Your task to perform on an android device: Play the last video I watched on Youtube Image 0: 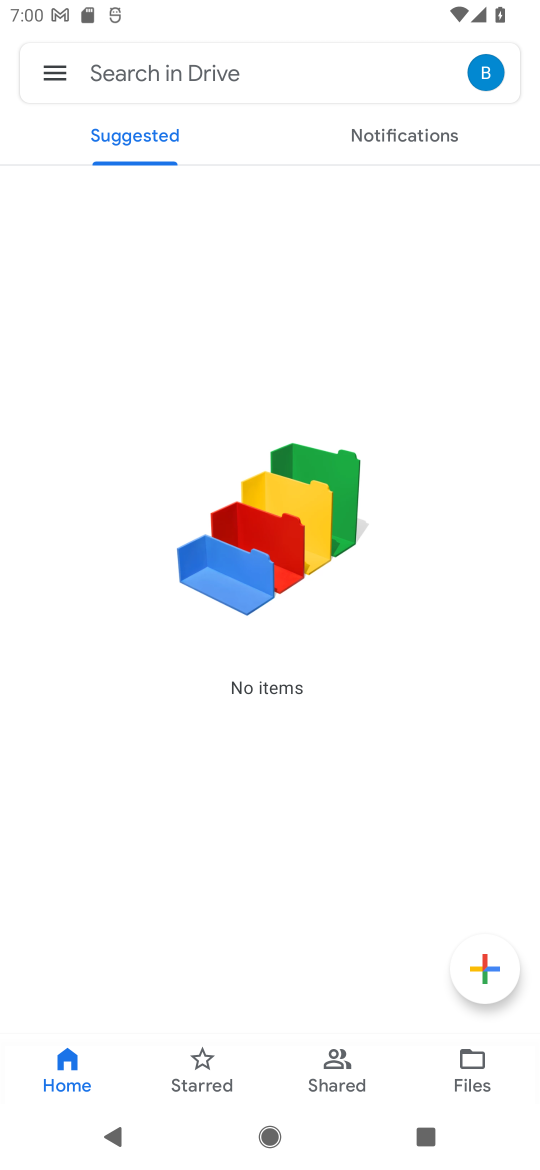
Step 0: press home button
Your task to perform on an android device: Play the last video I watched on Youtube Image 1: 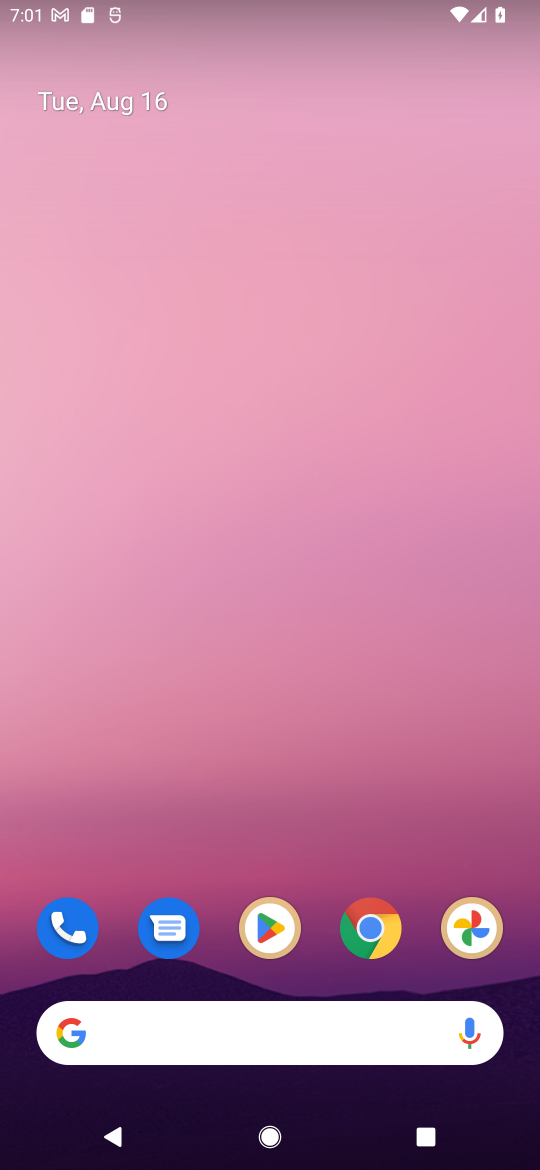
Step 1: drag from (267, 984) to (282, 50)
Your task to perform on an android device: Play the last video I watched on Youtube Image 2: 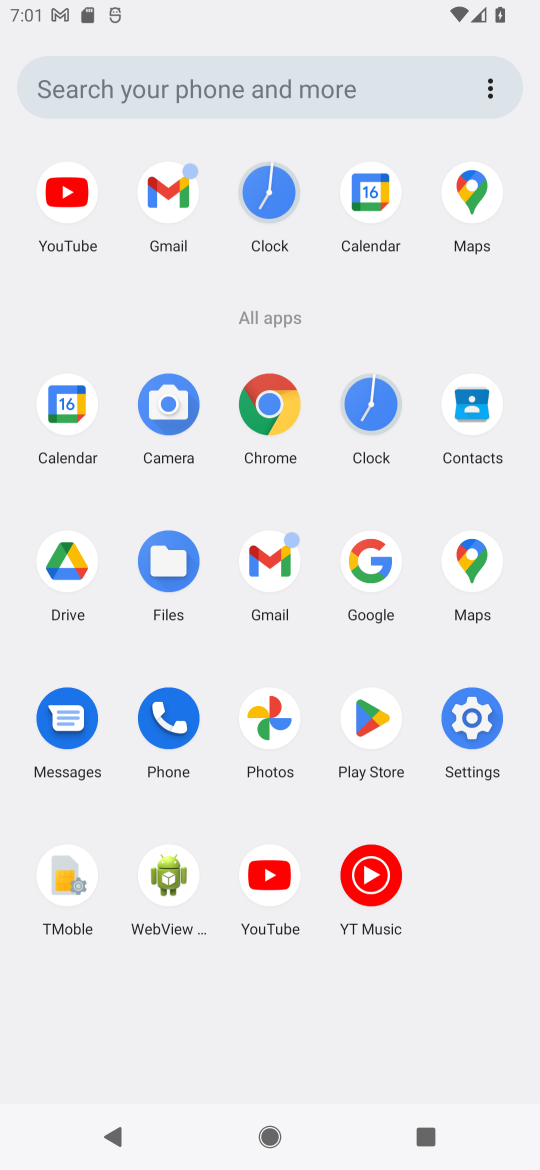
Step 2: click (277, 897)
Your task to perform on an android device: Play the last video I watched on Youtube Image 3: 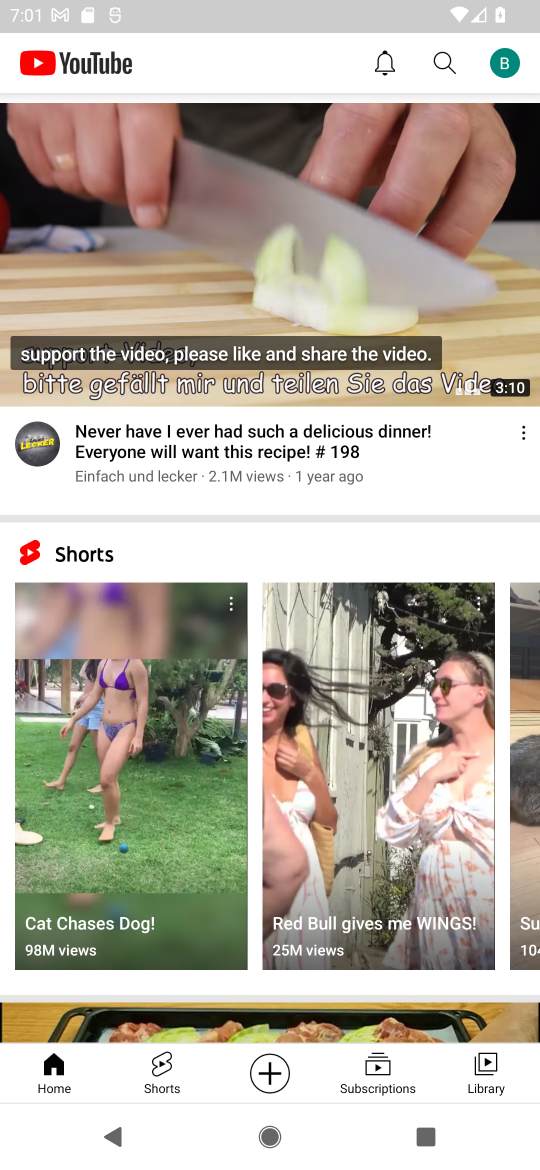
Step 3: click (479, 1068)
Your task to perform on an android device: Play the last video I watched on Youtube Image 4: 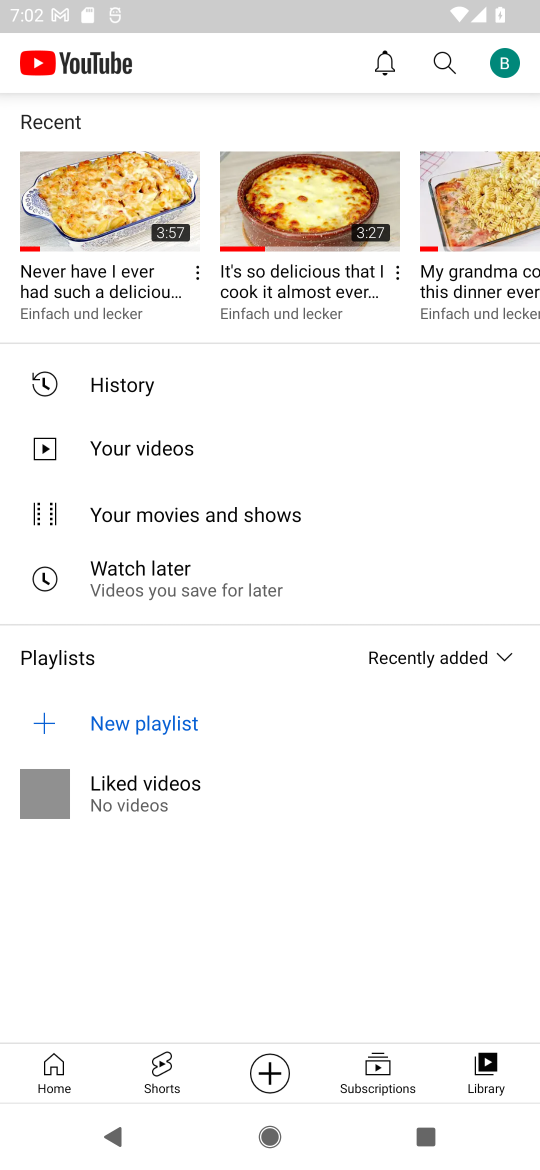
Step 4: click (81, 217)
Your task to perform on an android device: Play the last video I watched on Youtube Image 5: 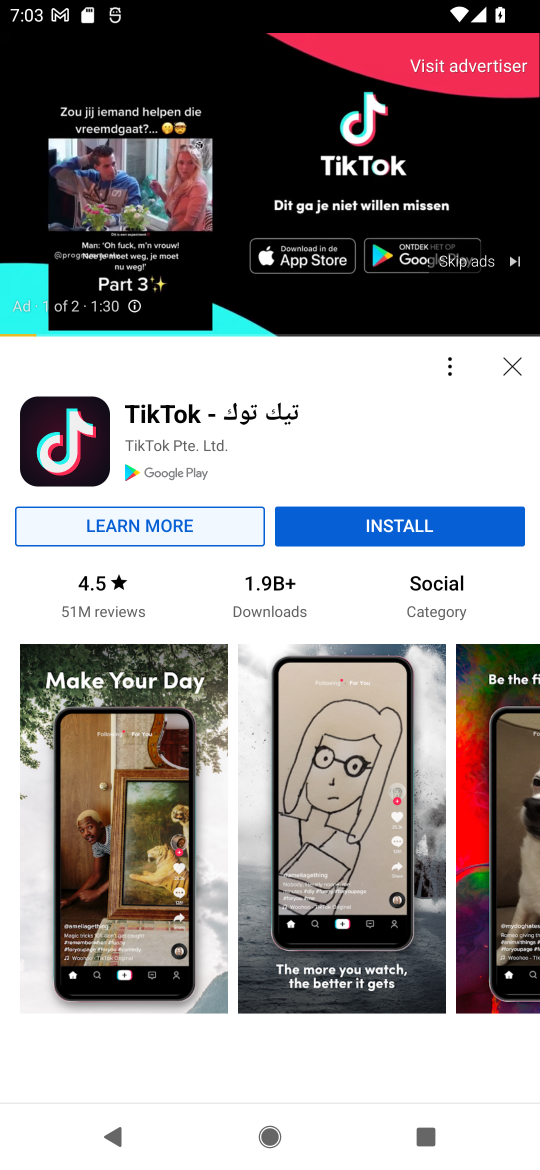
Step 5: task complete